Your task to perform on an android device: toggle sleep mode Image 0: 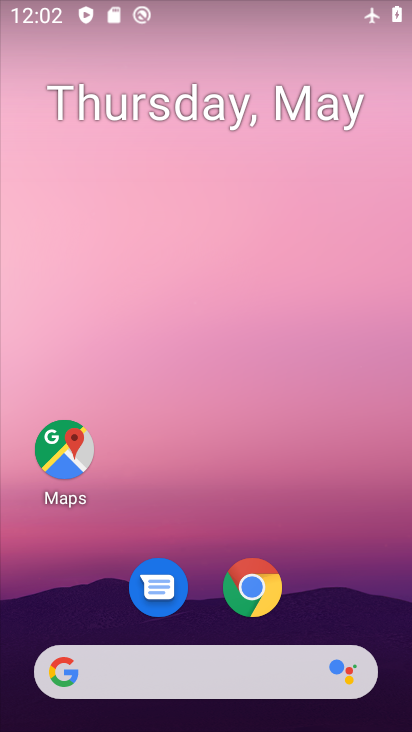
Step 0: drag from (306, 652) to (336, 8)
Your task to perform on an android device: toggle sleep mode Image 1: 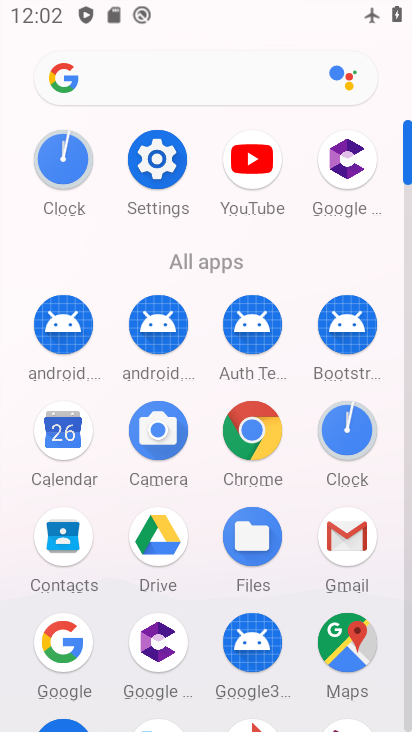
Step 1: click (149, 157)
Your task to perform on an android device: toggle sleep mode Image 2: 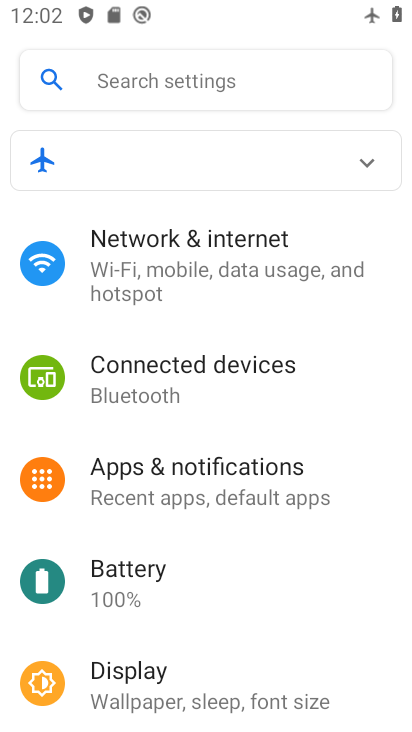
Step 2: drag from (223, 622) to (245, 142)
Your task to perform on an android device: toggle sleep mode Image 3: 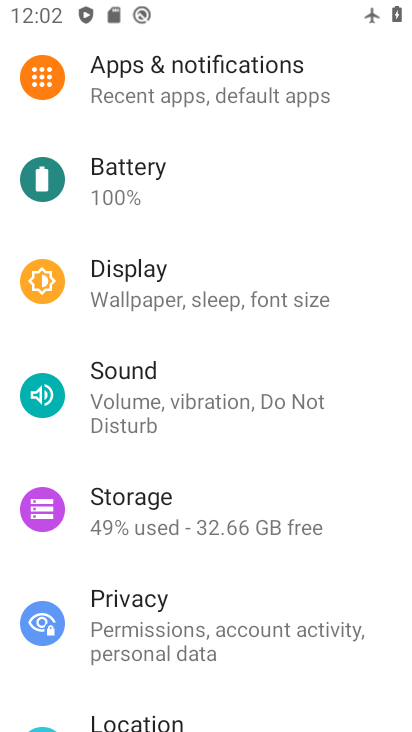
Step 3: drag from (188, 605) to (167, 694)
Your task to perform on an android device: toggle sleep mode Image 4: 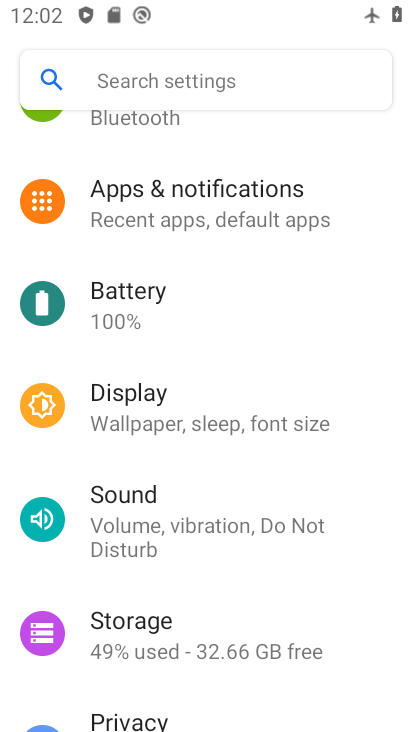
Step 4: drag from (180, 296) to (216, 675)
Your task to perform on an android device: toggle sleep mode Image 5: 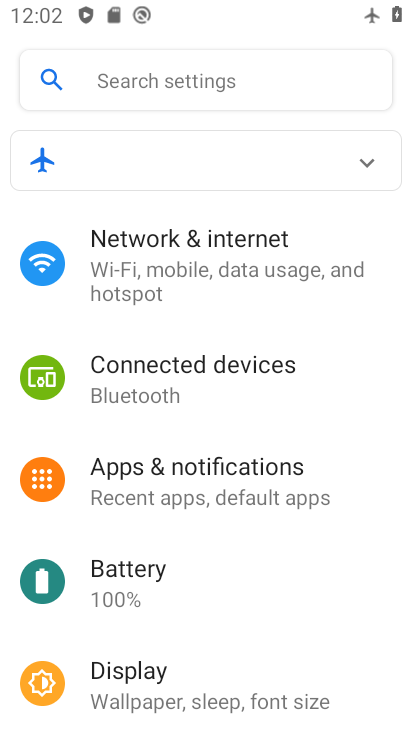
Step 5: drag from (215, 646) to (245, 364)
Your task to perform on an android device: toggle sleep mode Image 6: 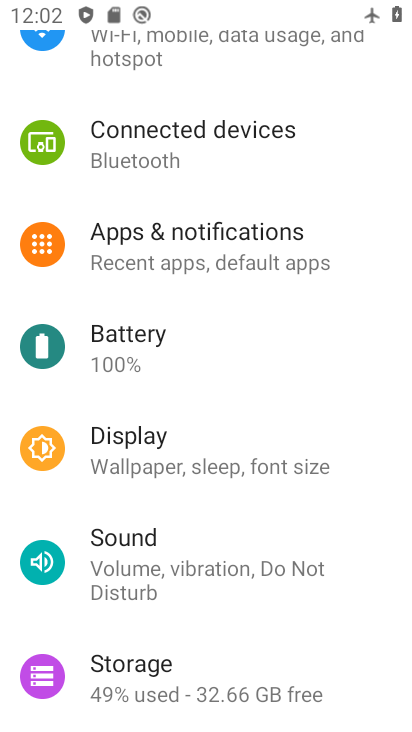
Step 6: click (272, 455)
Your task to perform on an android device: toggle sleep mode Image 7: 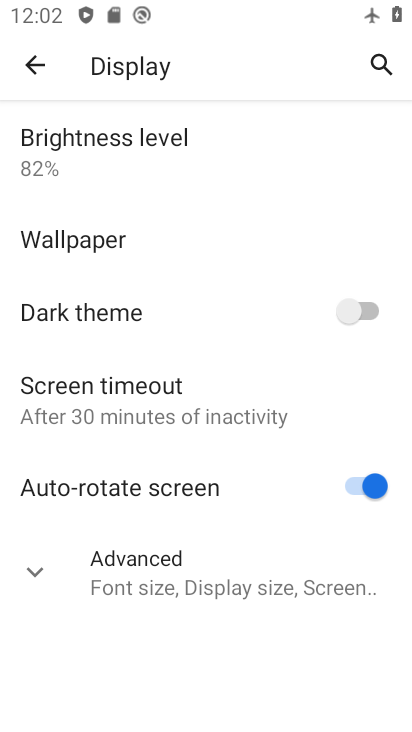
Step 7: task complete